Your task to perform on an android device: Open calendar and show me the first week of next month Image 0: 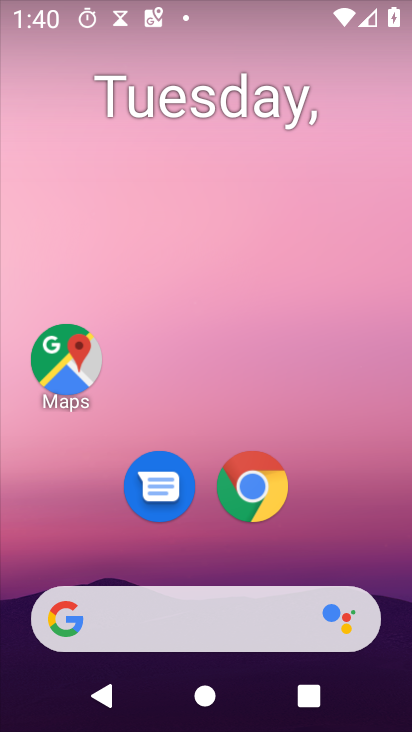
Step 0: drag from (358, 572) to (309, 102)
Your task to perform on an android device: Open calendar and show me the first week of next month Image 1: 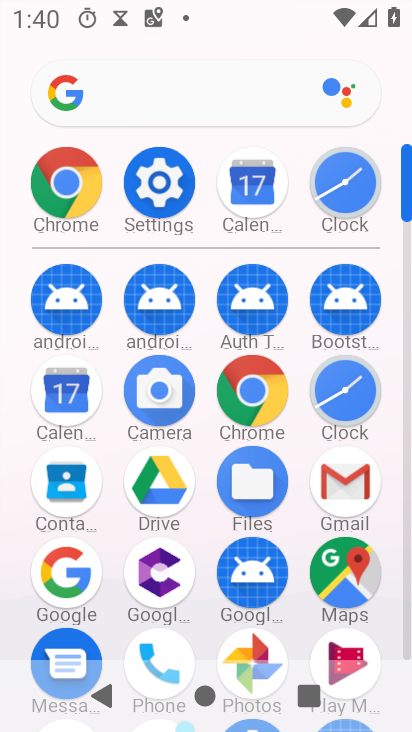
Step 1: click (243, 199)
Your task to perform on an android device: Open calendar and show me the first week of next month Image 2: 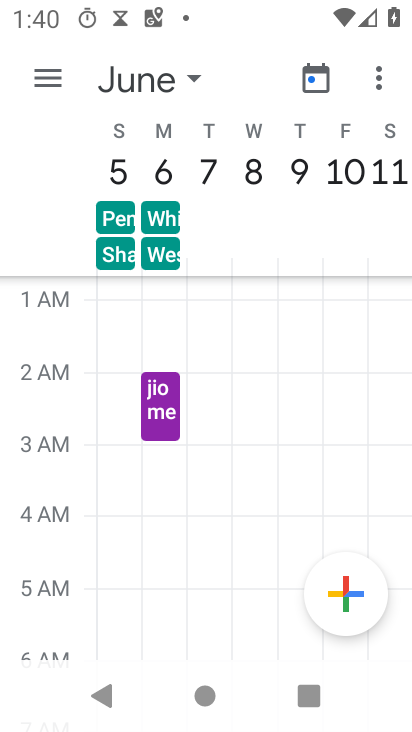
Step 2: task complete